Your task to perform on an android device: toggle sleep mode Image 0: 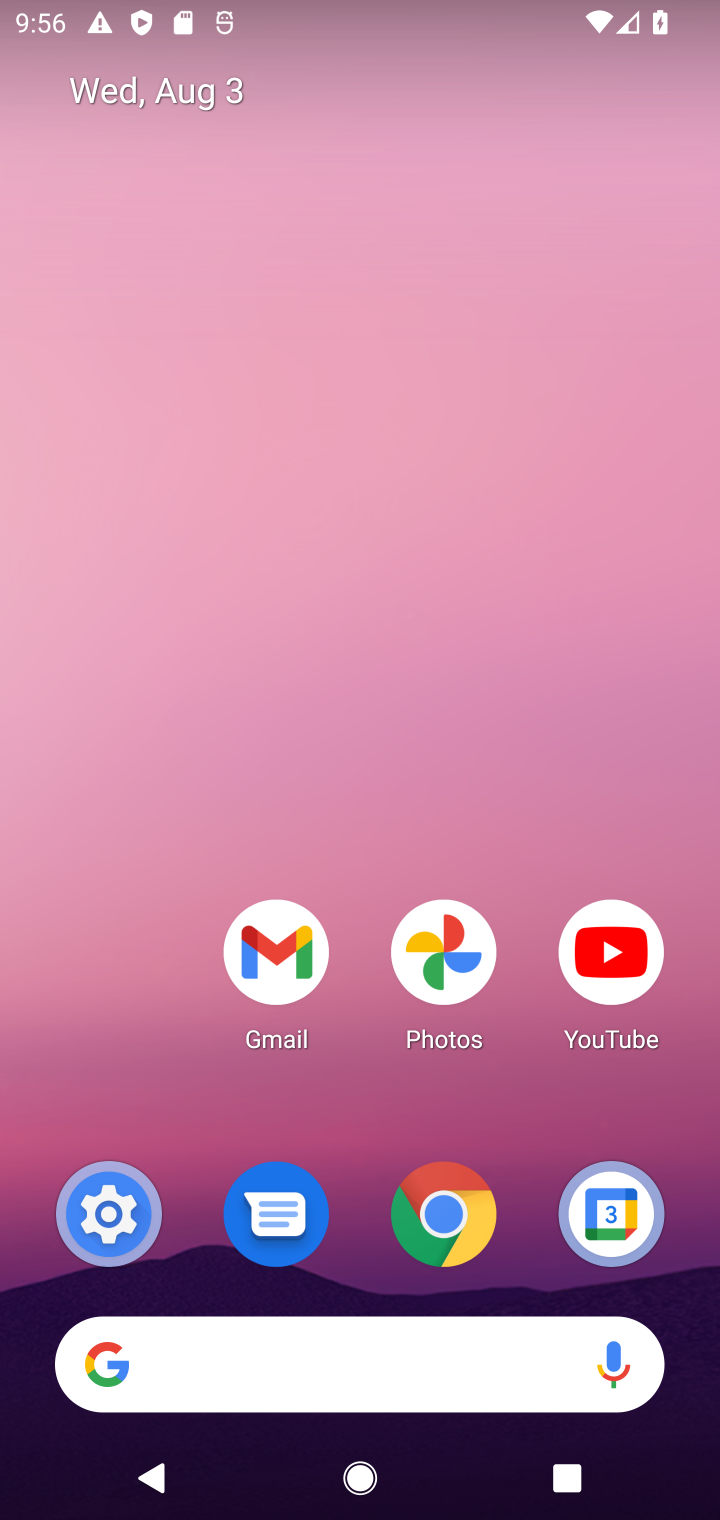
Step 0: press home button
Your task to perform on an android device: toggle sleep mode Image 1: 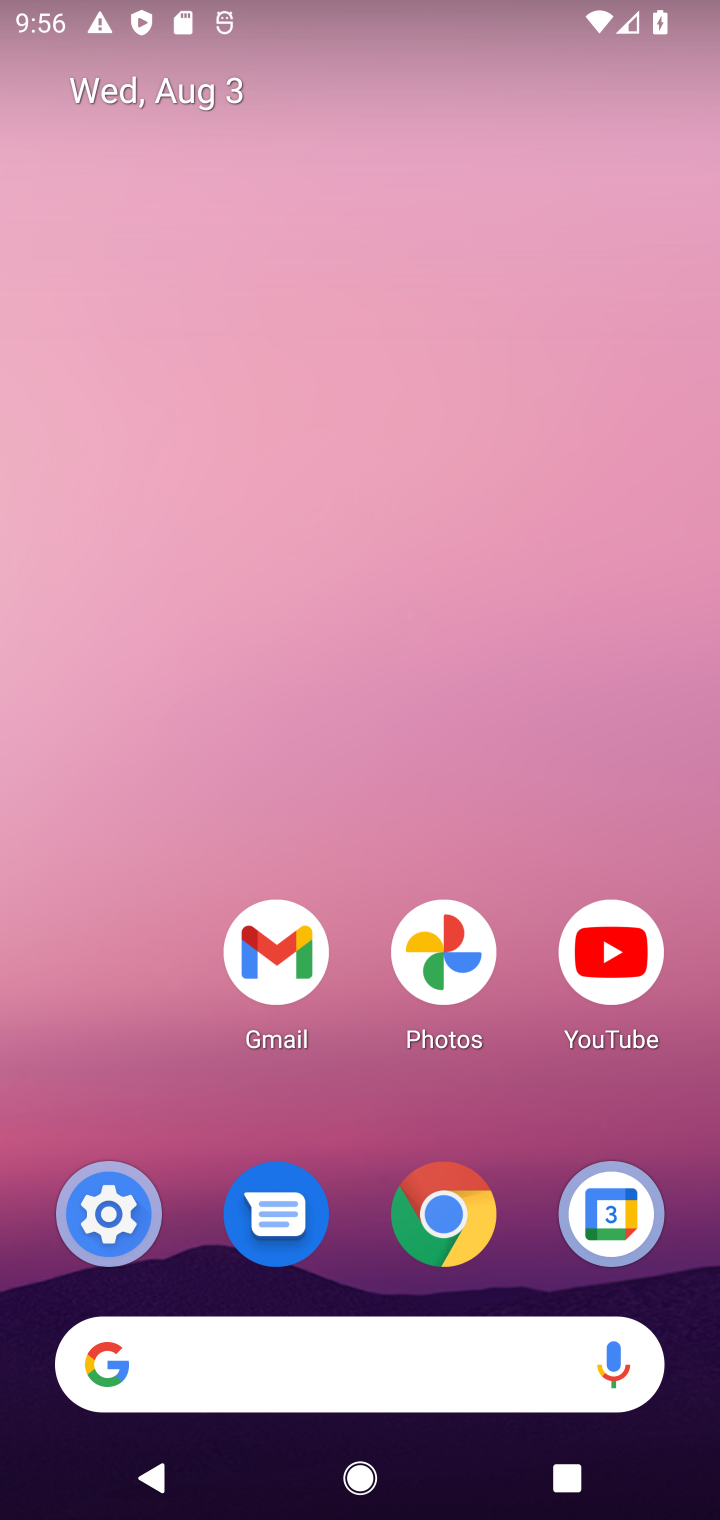
Step 1: drag from (281, 734) to (331, 87)
Your task to perform on an android device: toggle sleep mode Image 2: 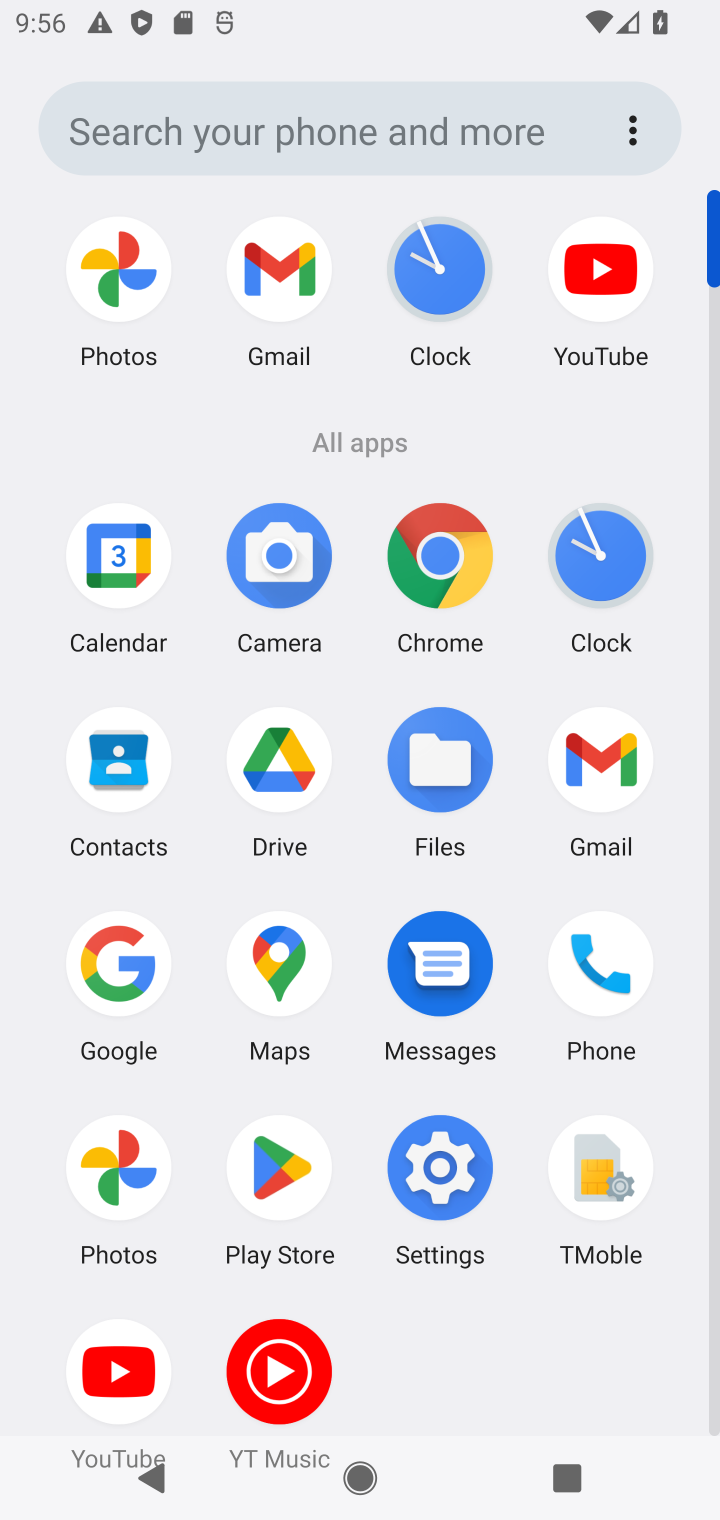
Step 2: click (449, 1186)
Your task to perform on an android device: toggle sleep mode Image 3: 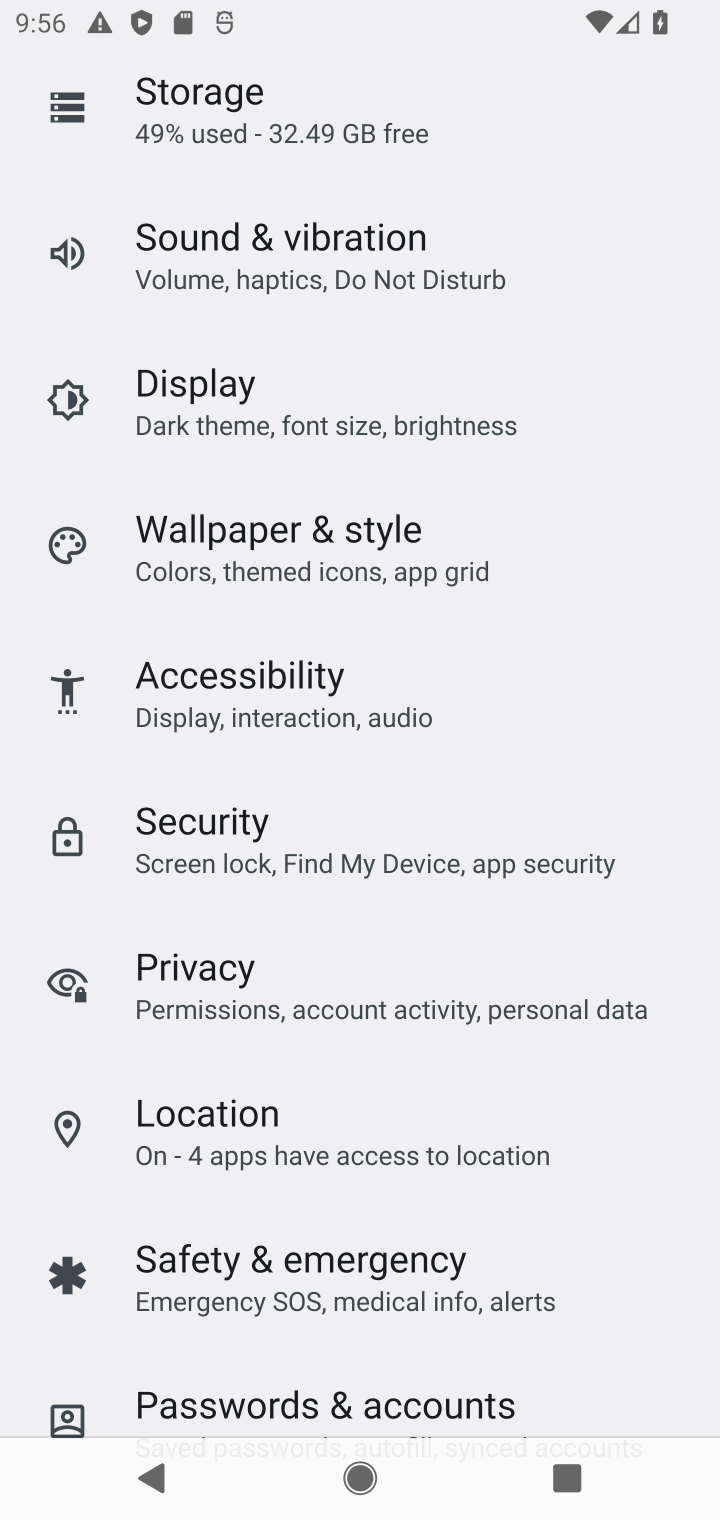
Step 3: click (160, 440)
Your task to perform on an android device: toggle sleep mode Image 4: 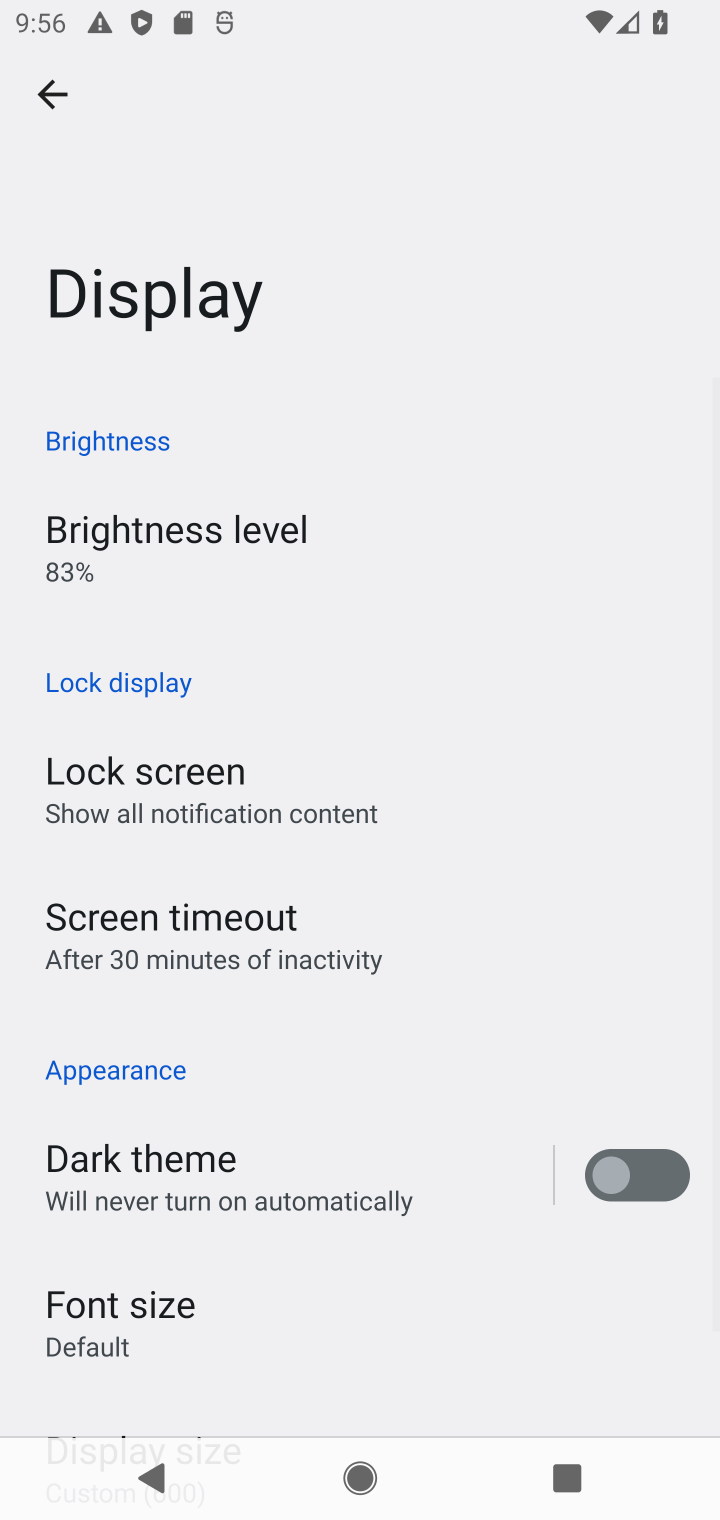
Step 4: task complete